Your task to perform on an android device: open app "Google Translate" Image 0: 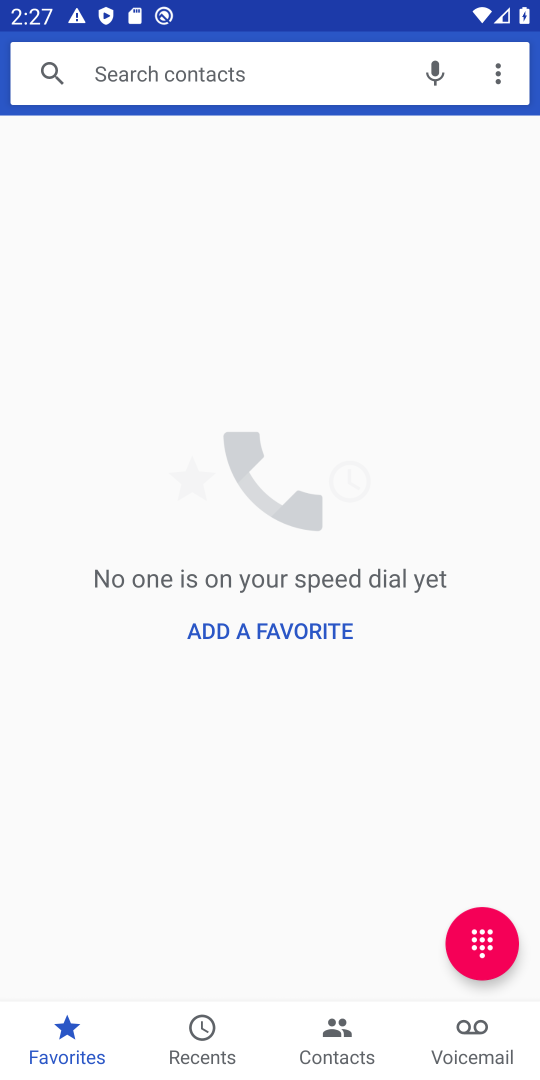
Step 0: press home button
Your task to perform on an android device: open app "Google Translate" Image 1: 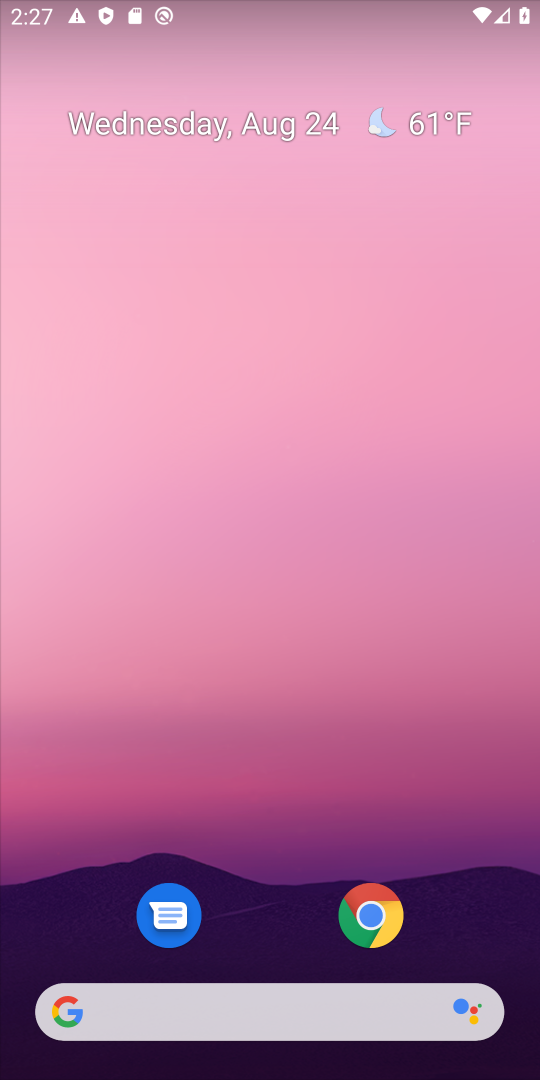
Step 1: drag from (271, 821) to (285, 257)
Your task to perform on an android device: open app "Google Translate" Image 2: 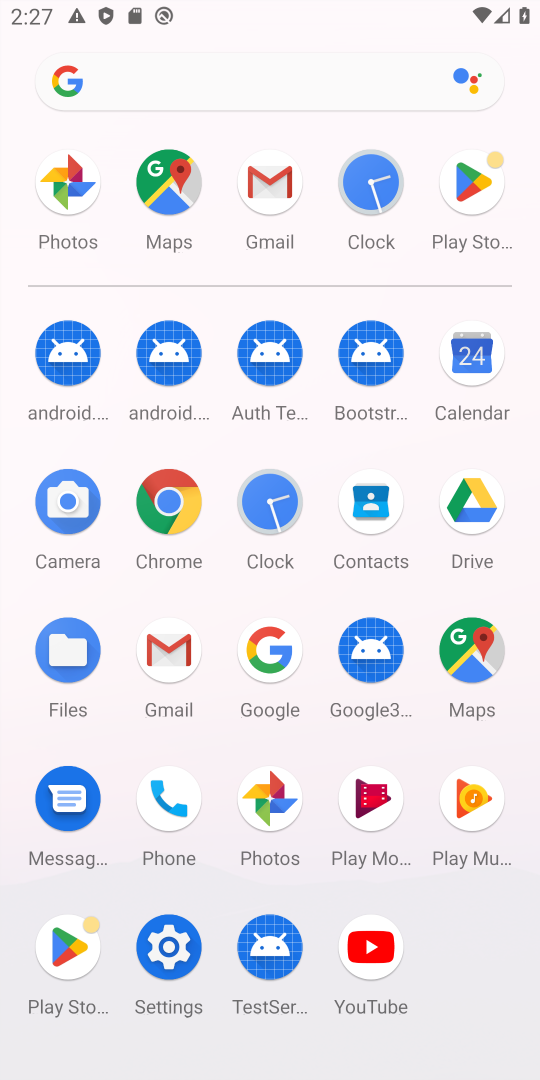
Step 2: click (480, 187)
Your task to perform on an android device: open app "Google Translate" Image 3: 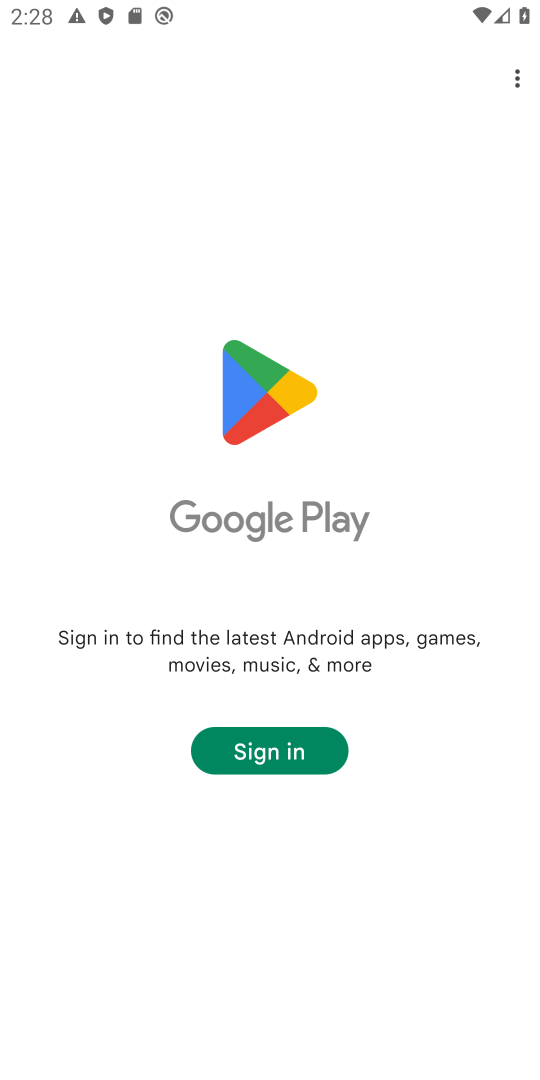
Step 3: task complete